Your task to perform on an android device: Open the calendar and show me this week's events? Image 0: 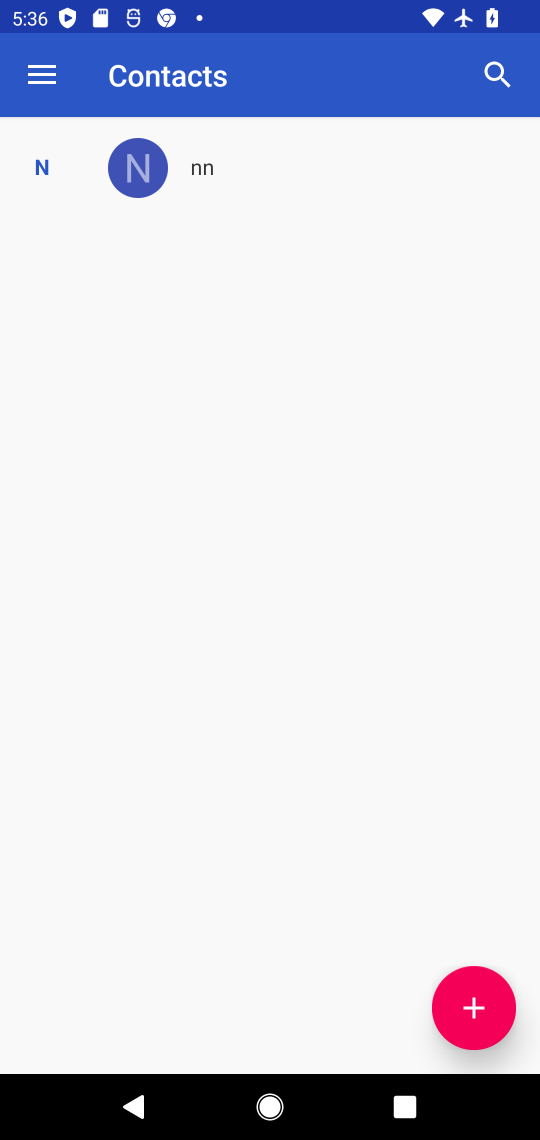
Step 0: press home button
Your task to perform on an android device: Open the calendar and show me this week's events? Image 1: 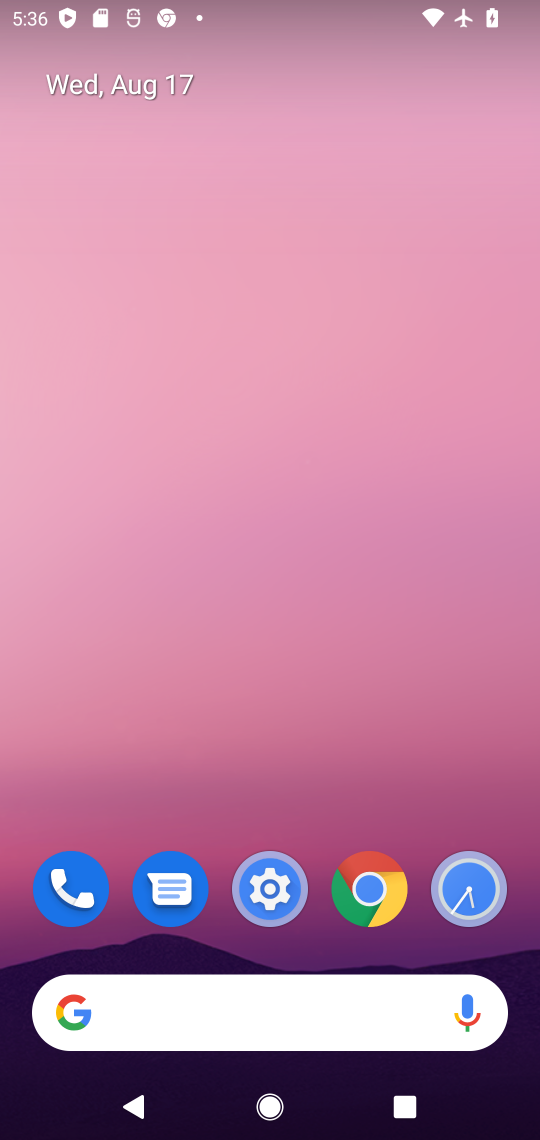
Step 1: drag from (299, 784) to (203, 50)
Your task to perform on an android device: Open the calendar and show me this week's events? Image 2: 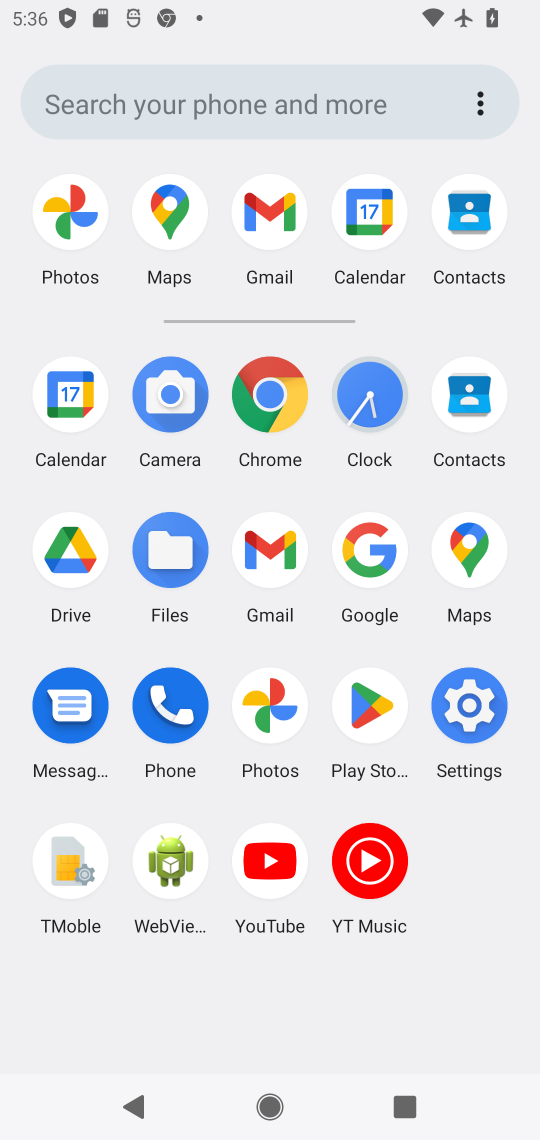
Step 2: click (74, 397)
Your task to perform on an android device: Open the calendar and show me this week's events? Image 3: 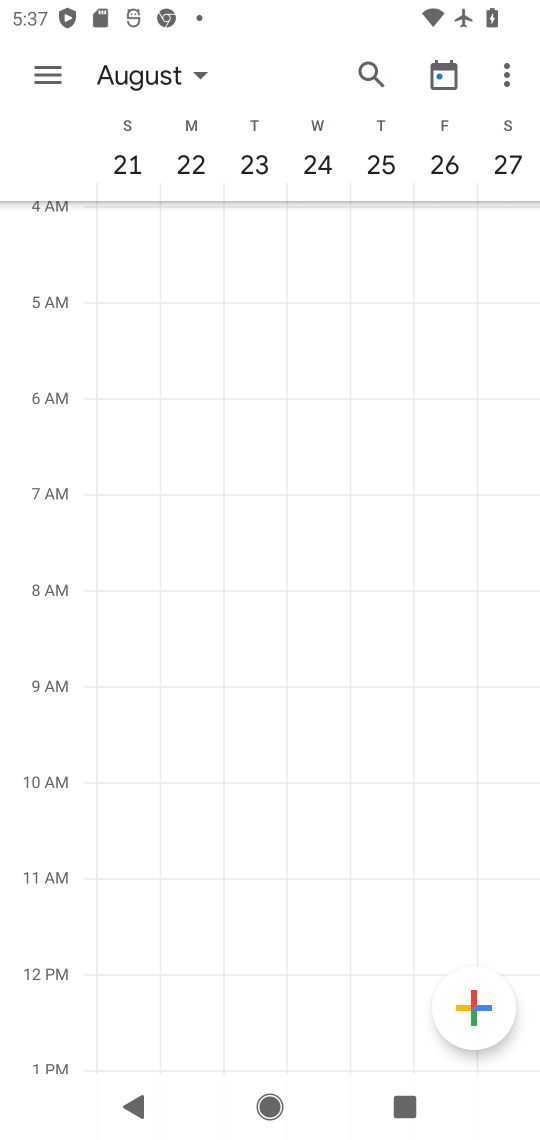
Step 3: click (55, 79)
Your task to perform on an android device: Open the calendar and show me this week's events? Image 4: 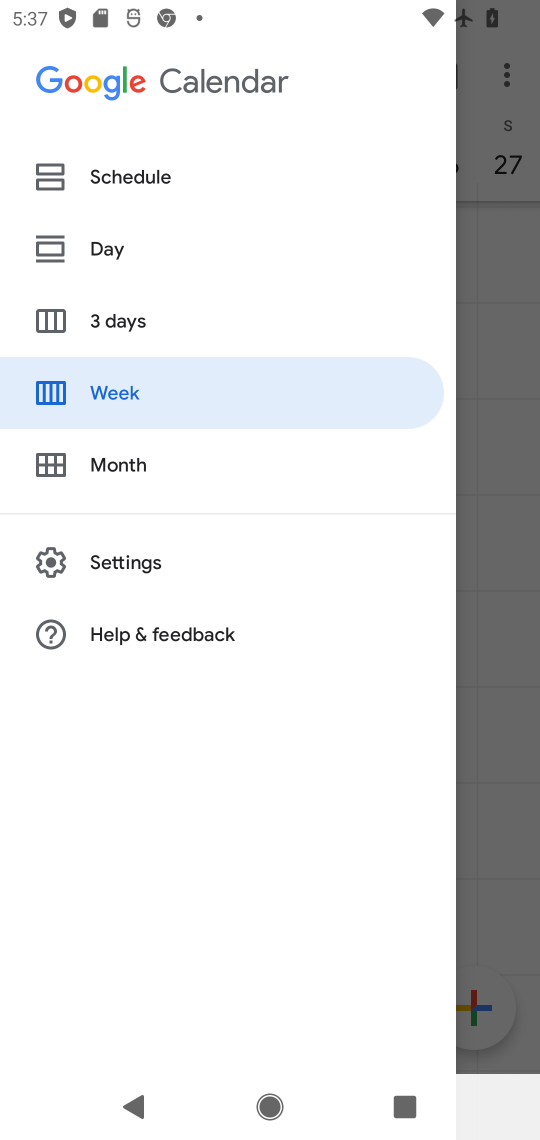
Step 4: click (133, 407)
Your task to perform on an android device: Open the calendar and show me this week's events? Image 5: 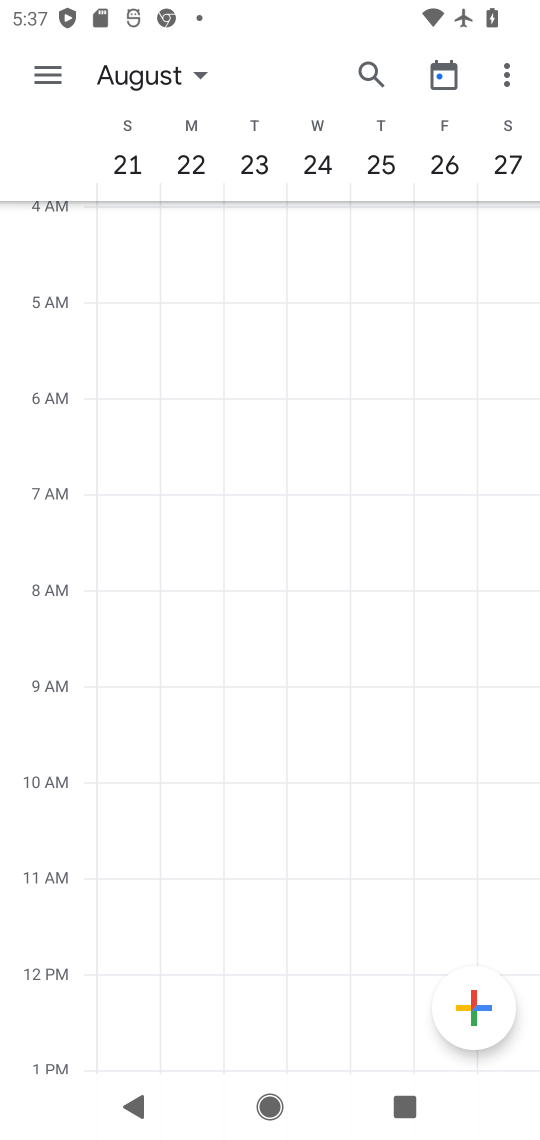
Step 5: click (194, 67)
Your task to perform on an android device: Open the calendar and show me this week's events? Image 6: 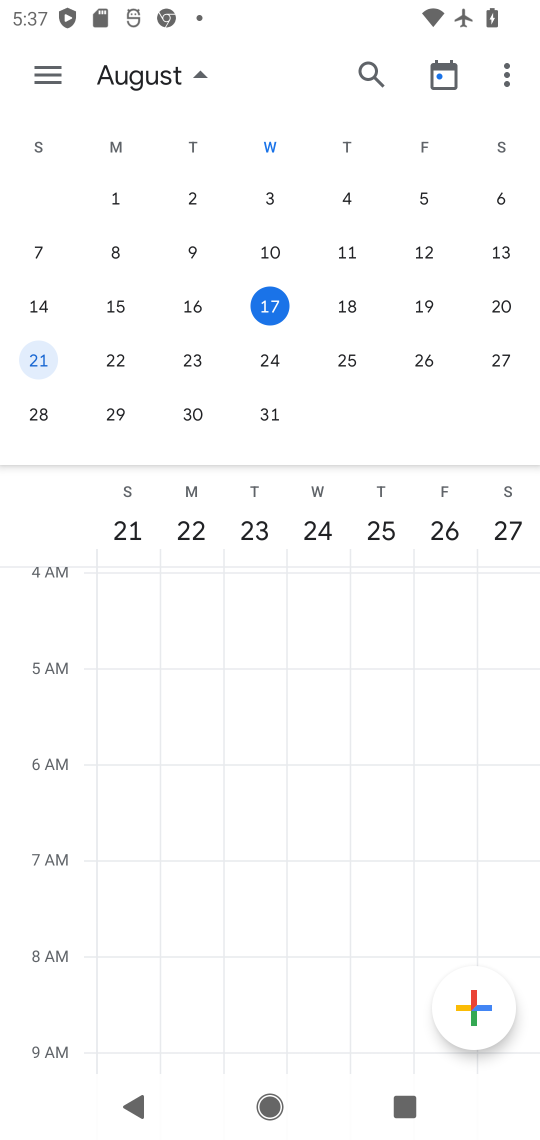
Step 6: click (261, 308)
Your task to perform on an android device: Open the calendar and show me this week's events? Image 7: 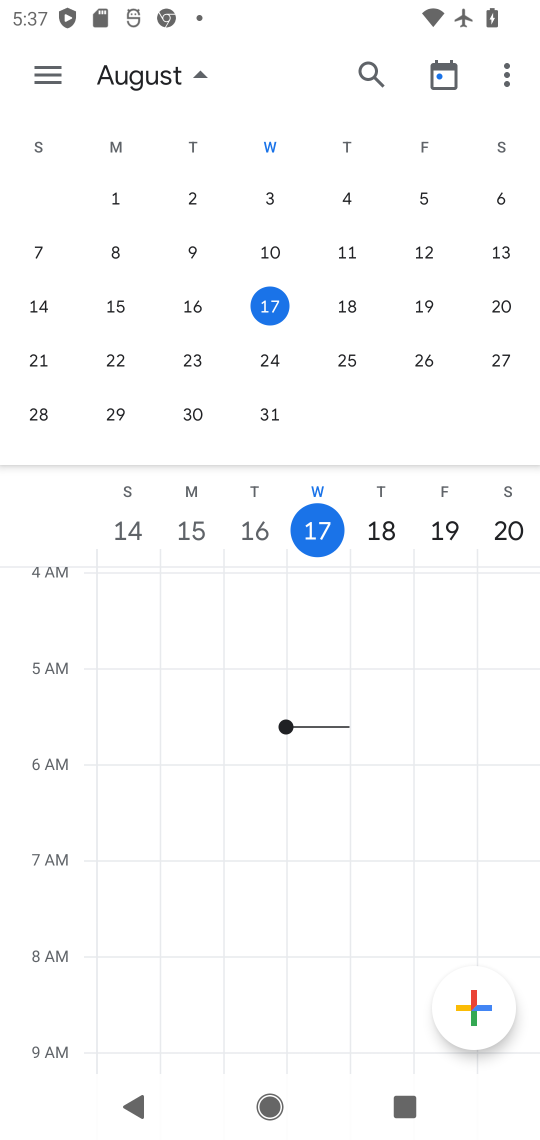
Step 7: task complete